Your task to perform on an android device: Open Wikipedia Image 0: 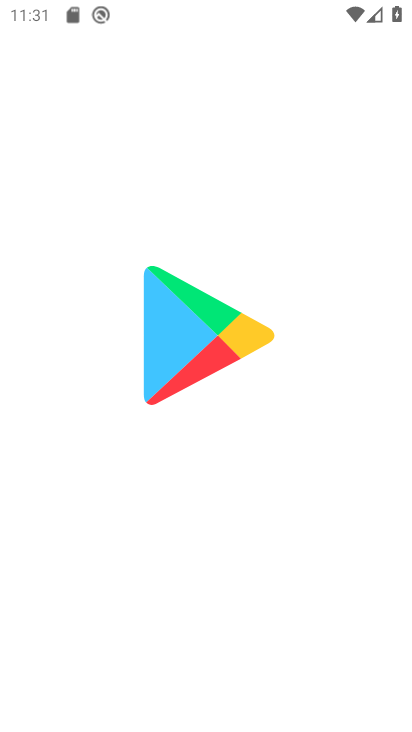
Step 0: click (66, 456)
Your task to perform on an android device: Open Wikipedia Image 1: 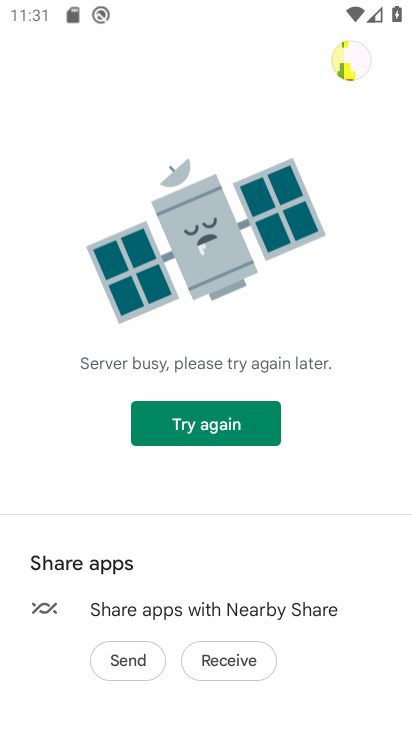
Step 1: press home button
Your task to perform on an android device: Open Wikipedia Image 2: 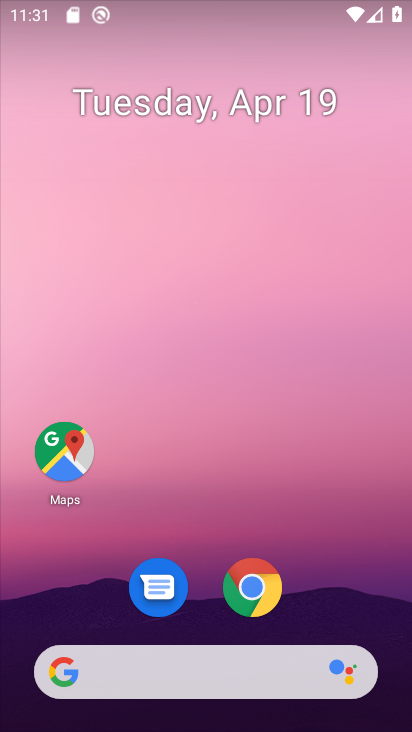
Step 2: click (261, 606)
Your task to perform on an android device: Open Wikipedia Image 3: 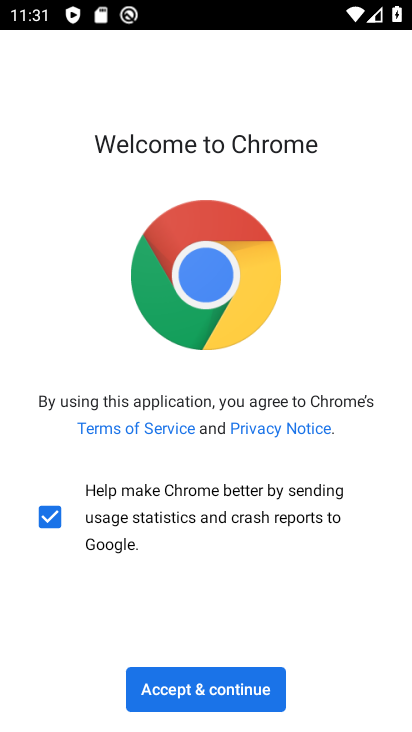
Step 3: click (206, 688)
Your task to perform on an android device: Open Wikipedia Image 4: 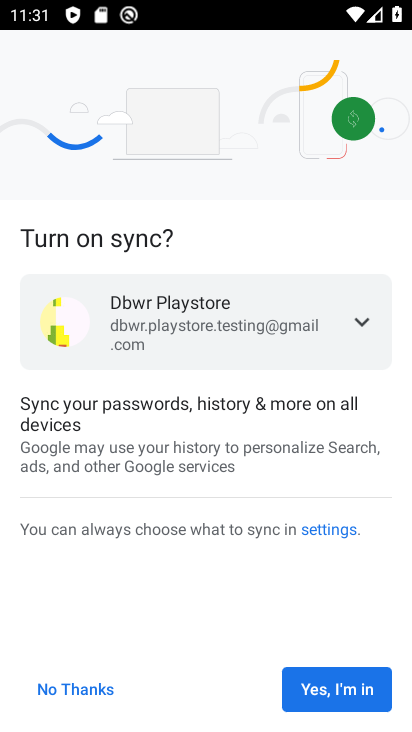
Step 4: click (332, 688)
Your task to perform on an android device: Open Wikipedia Image 5: 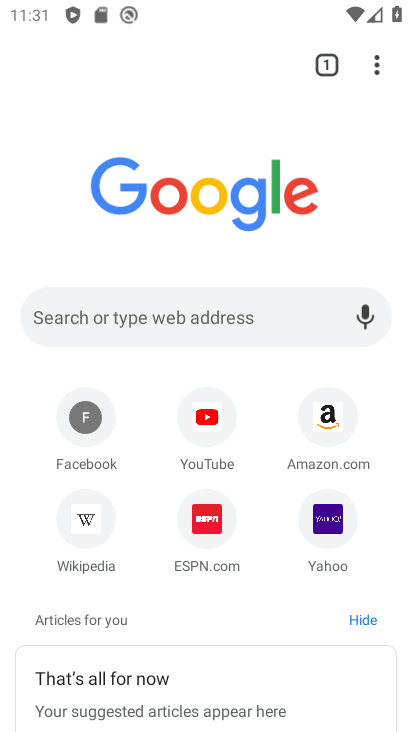
Step 5: click (92, 521)
Your task to perform on an android device: Open Wikipedia Image 6: 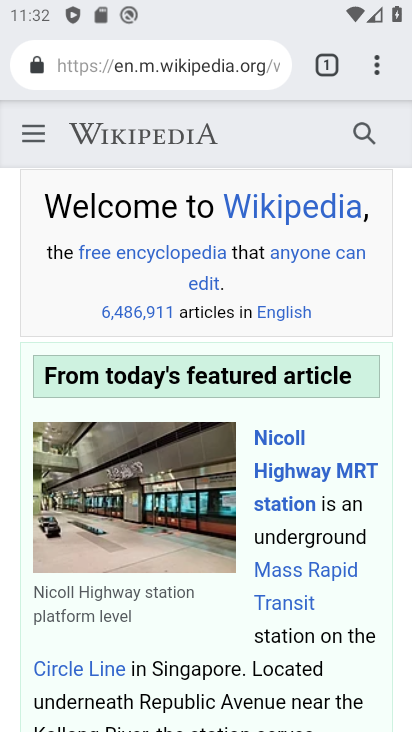
Step 6: task complete